Your task to perform on an android device: turn off smart reply in the gmail app Image 0: 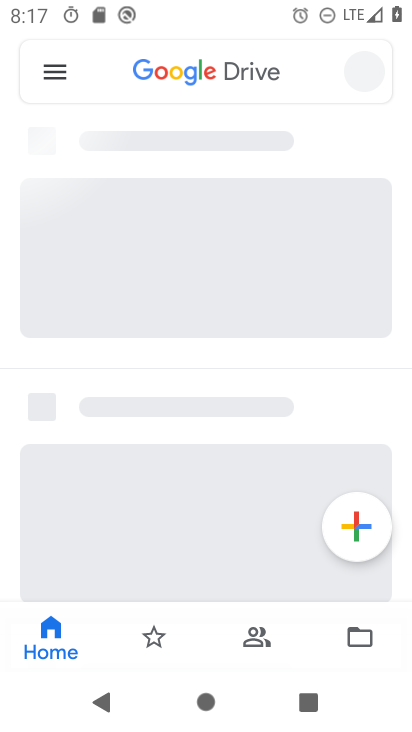
Step 0: drag from (384, 617) to (291, 76)
Your task to perform on an android device: turn off smart reply in the gmail app Image 1: 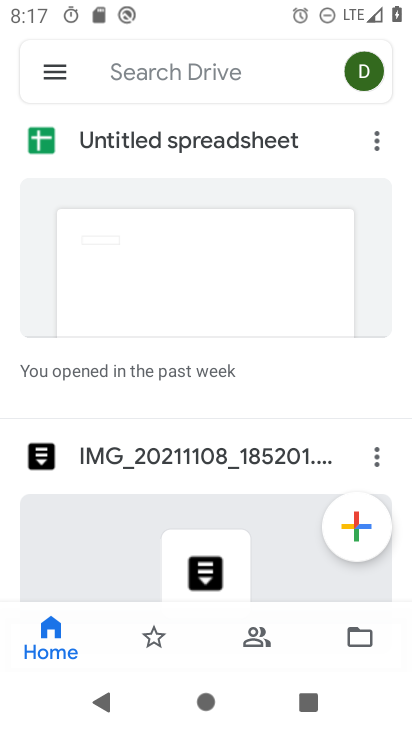
Step 1: press home button
Your task to perform on an android device: turn off smart reply in the gmail app Image 2: 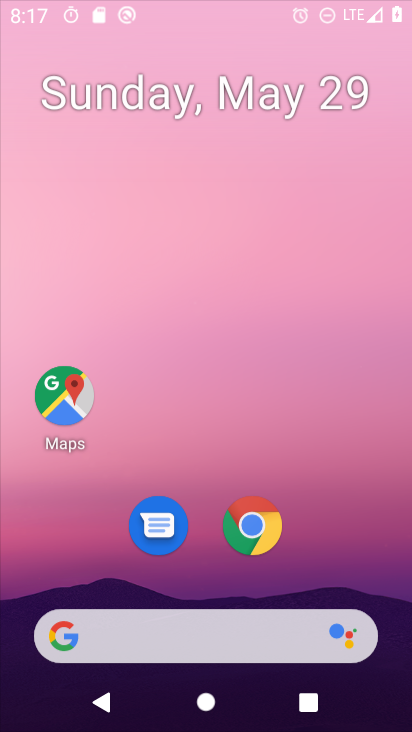
Step 2: drag from (388, 673) to (257, 40)
Your task to perform on an android device: turn off smart reply in the gmail app Image 3: 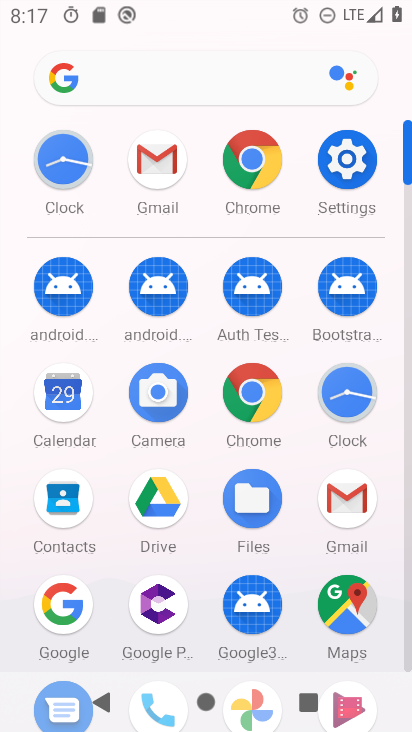
Step 3: click (347, 507)
Your task to perform on an android device: turn off smart reply in the gmail app Image 4: 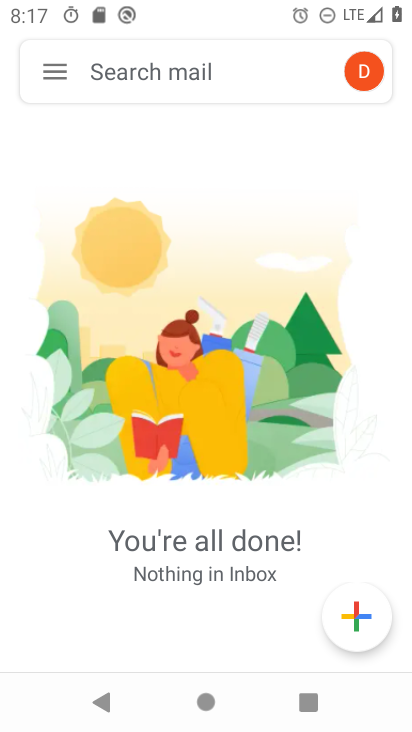
Step 4: click (48, 70)
Your task to perform on an android device: turn off smart reply in the gmail app Image 5: 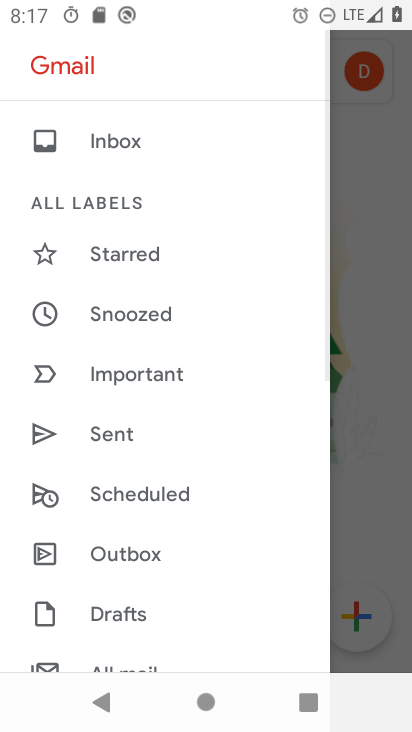
Step 5: drag from (93, 632) to (171, 90)
Your task to perform on an android device: turn off smart reply in the gmail app Image 6: 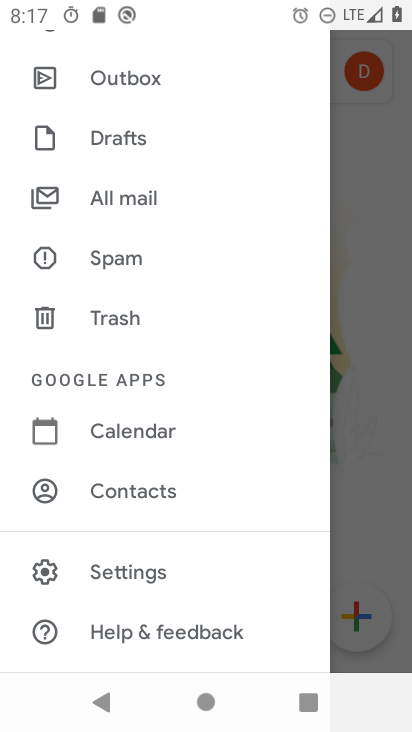
Step 6: click (155, 578)
Your task to perform on an android device: turn off smart reply in the gmail app Image 7: 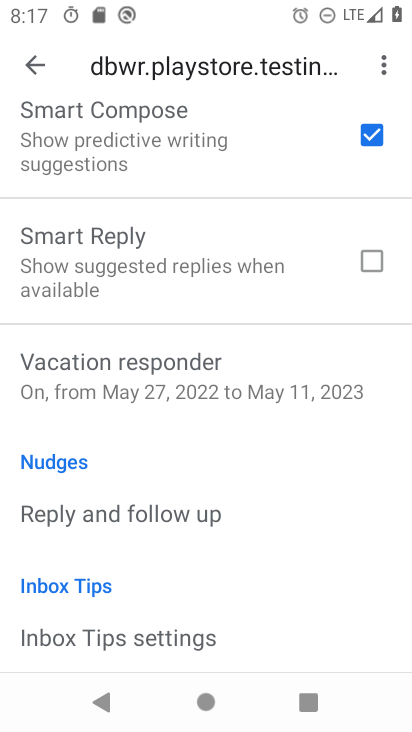
Step 7: task complete